Your task to perform on an android device: Show me productivity apps on the Play Store Image 0: 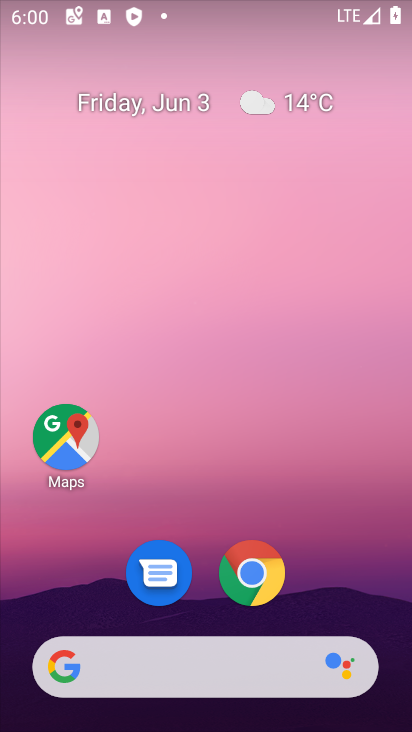
Step 0: drag from (294, 659) to (352, 93)
Your task to perform on an android device: Show me productivity apps on the Play Store Image 1: 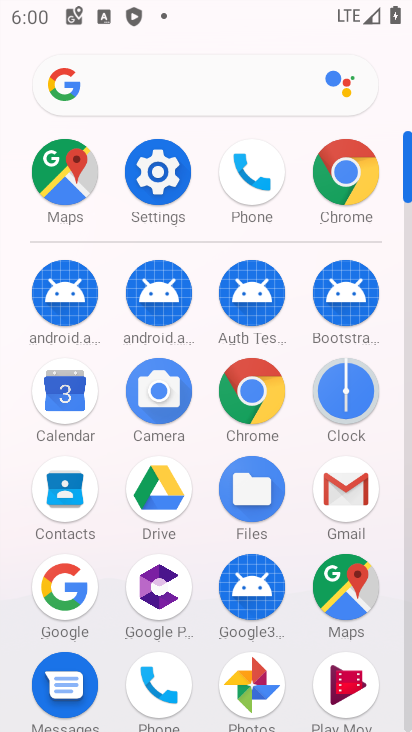
Step 1: drag from (331, 668) to (360, 329)
Your task to perform on an android device: Show me productivity apps on the Play Store Image 2: 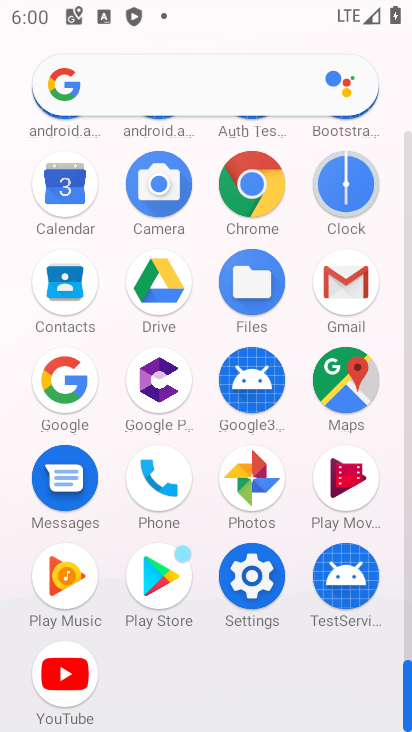
Step 2: click (165, 594)
Your task to perform on an android device: Show me productivity apps on the Play Store Image 3: 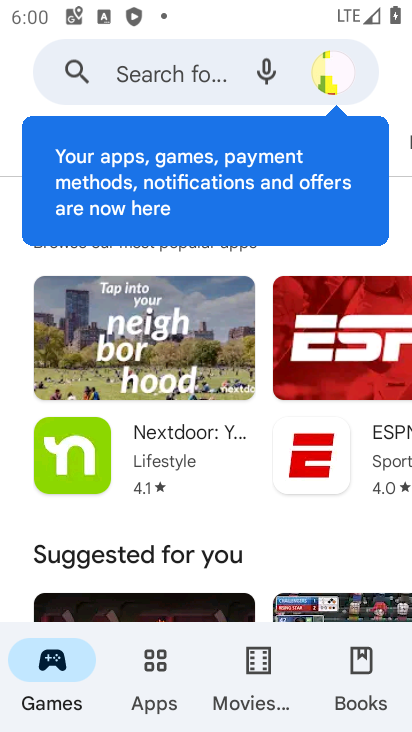
Step 3: click (161, 671)
Your task to perform on an android device: Show me productivity apps on the Play Store Image 4: 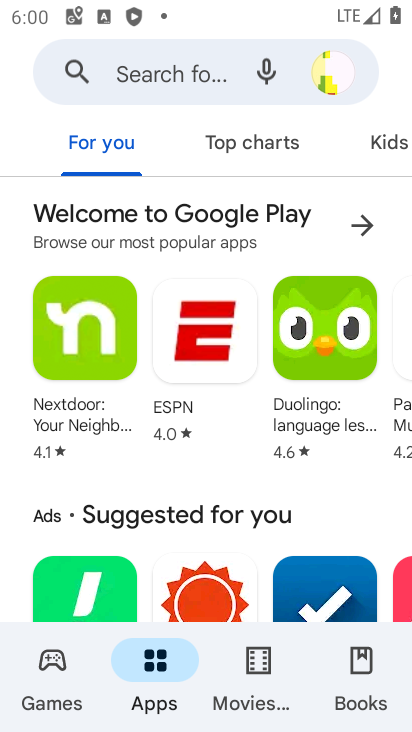
Step 4: drag from (209, 589) to (302, 208)
Your task to perform on an android device: Show me productivity apps on the Play Store Image 5: 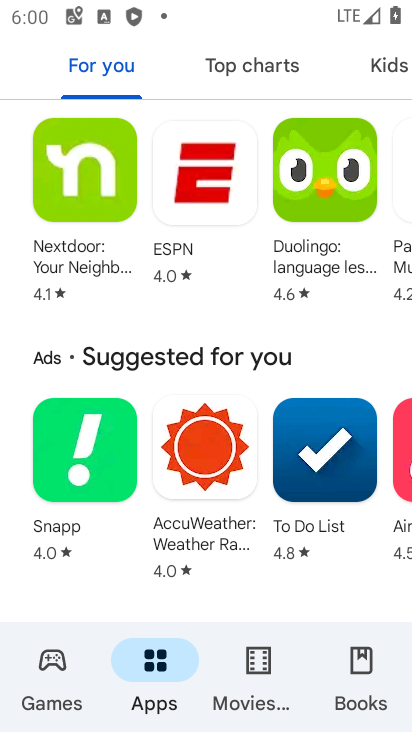
Step 5: drag from (270, 613) to (361, 140)
Your task to perform on an android device: Show me productivity apps on the Play Store Image 6: 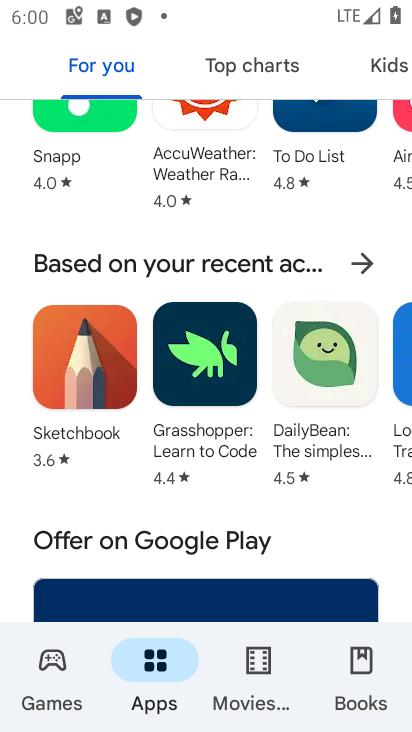
Step 6: drag from (278, 597) to (375, 62)
Your task to perform on an android device: Show me productivity apps on the Play Store Image 7: 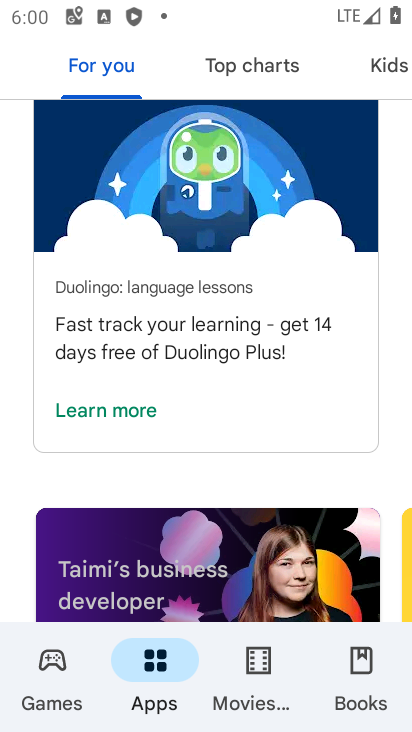
Step 7: drag from (236, 556) to (287, 123)
Your task to perform on an android device: Show me productivity apps on the Play Store Image 8: 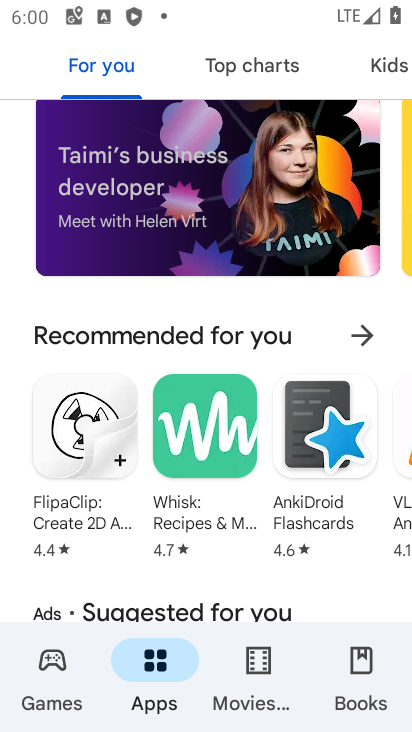
Step 8: drag from (196, 572) to (256, 194)
Your task to perform on an android device: Show me productivity apps on the Play Store Image 9: 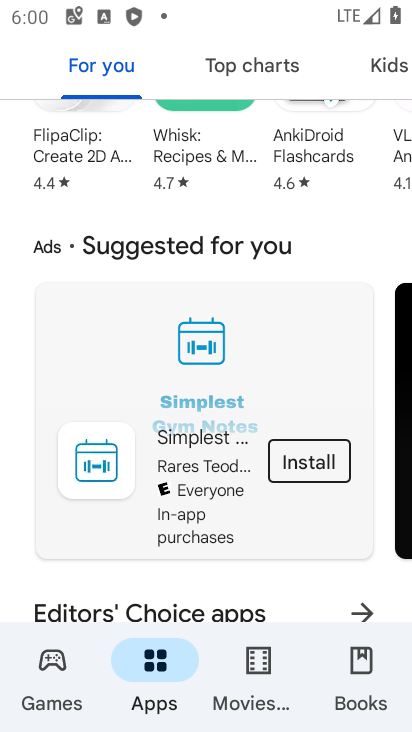
Step 9: drag from (202, 597) to (277, 123)
Your task to perform on an android device: Show me productivity apps on the Play Store Image 10: 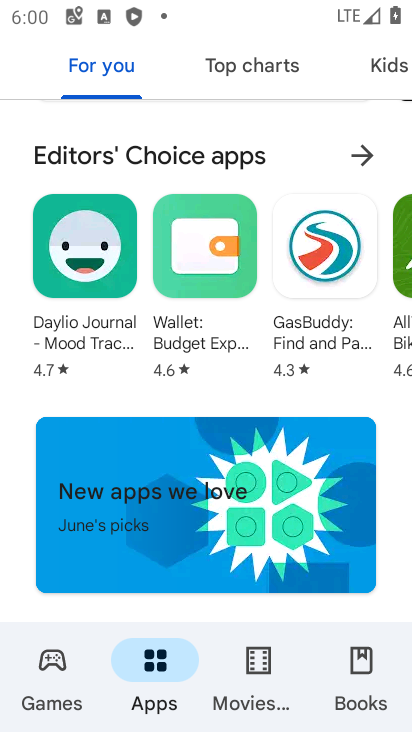
Step 10: drag from (239, 498) to (283, 78)
Your task to perform on an android device: Show me productivity apps on the Play Store Image 11: 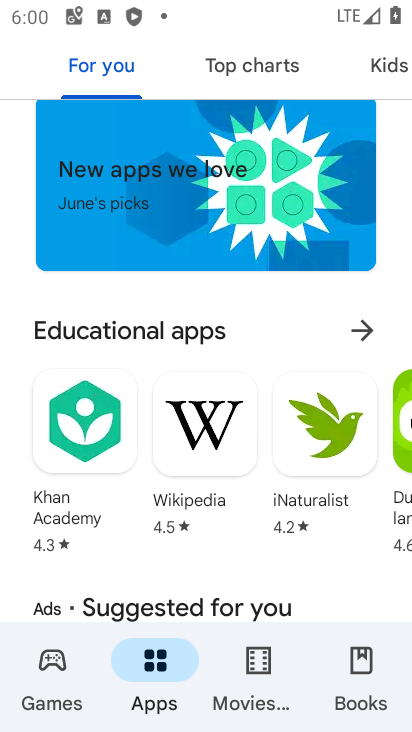
Step 11: drag from (183, 581) to (289, 65)
Your task to perform on an android device: Show me productivity apps on the Play Store Image 12: 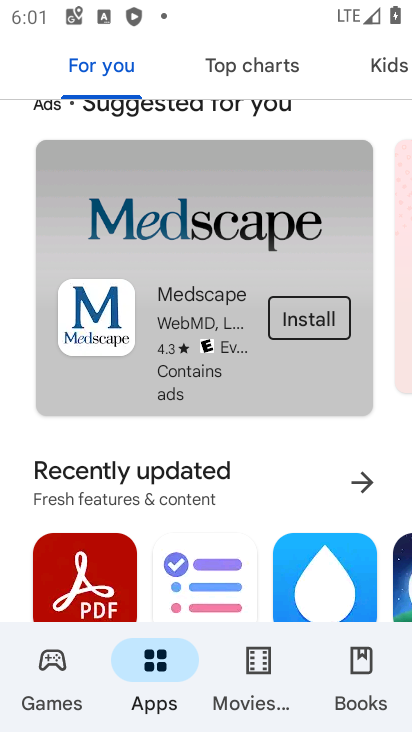
Step 12: drag from (278, 493) to (382, 37)
Your task to perform on an android device: Show me productivity apps on the Play Store Image 13: 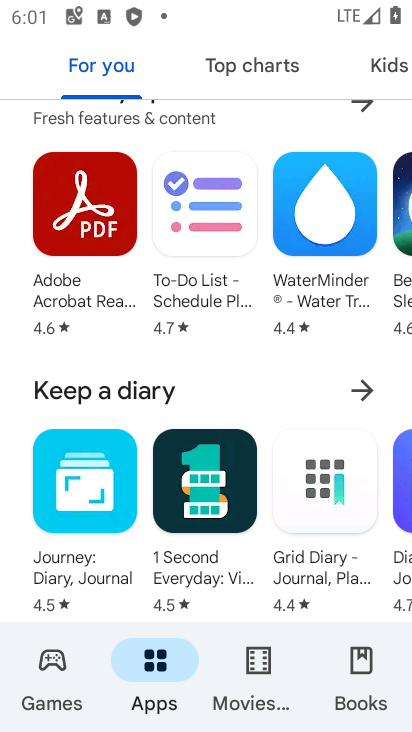
Step 13: drag from (300, 528) to (351, 129)
Your task to perform on an android device: Show me productivity apps on the Play Store Image 14: 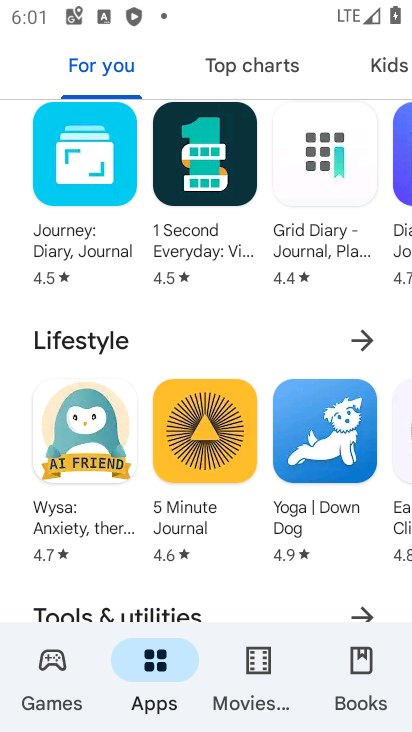
Step 14: drag from (254, 572) to (360, 165)
Your task to perform on an android device: Show me productivity apps on the Play Store Image 15: 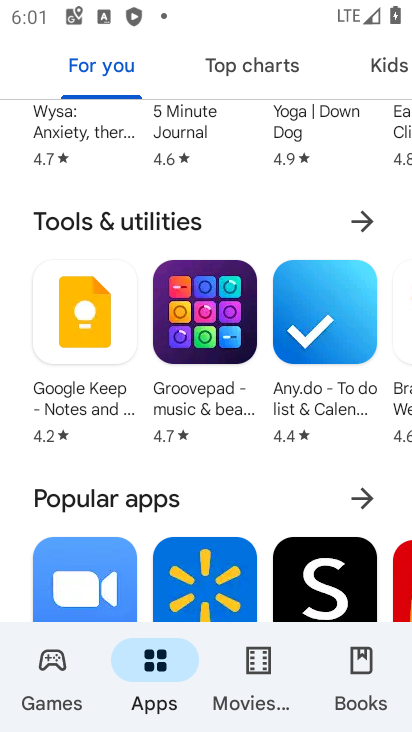
Step 15: drag from (339, 518) to (391, 81)
Your task to perform on an android device: Show me productivity apps on the Play Store Image 16: 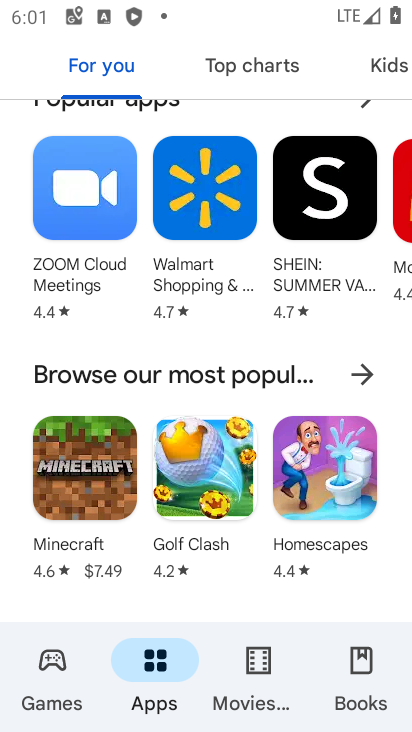
Step 16: drag from (232, 592) to (215, 86)
Your task to perform on an android device: Show me productivity apps on the Play Store Image 17: 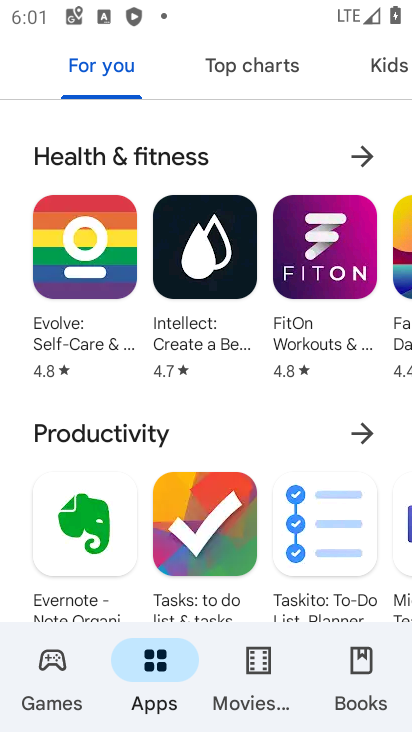
Step 17: click (372, 421)
Your task to perform on an android device: Show me productivity apps on the Play Store Image 18: 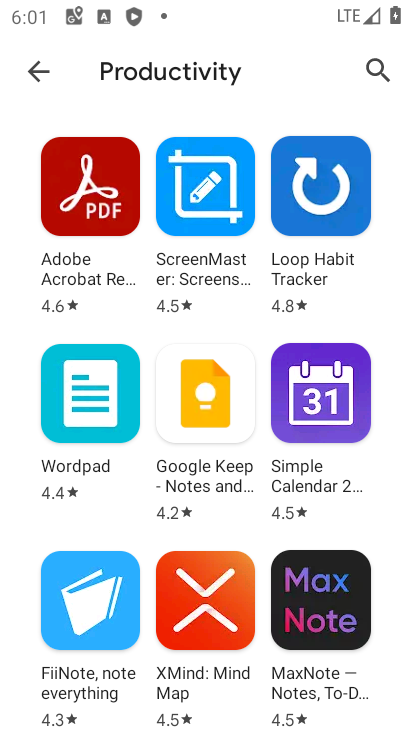
Step 18: task complete